Your task to perform on an android device: turn off improve location accuracy Image 0: 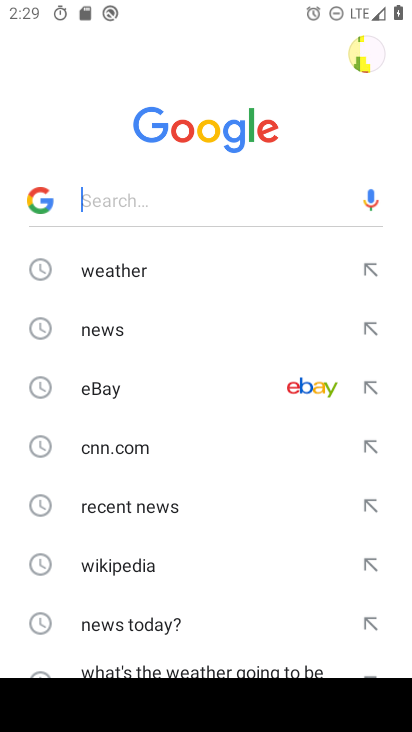
Step 0: press home button
Your task to perform on an android device: turn off improve location accuracy Image 1: 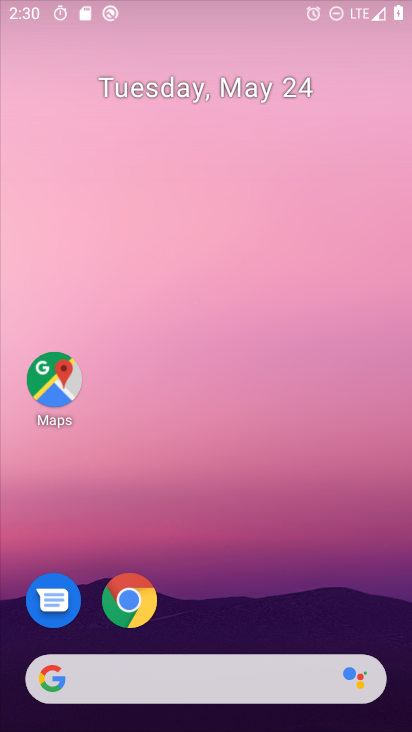
Step 1: drag from (272, 517) to (316, 78)
Your task to perform on an android device: turn off improve location accuracy Image 2: 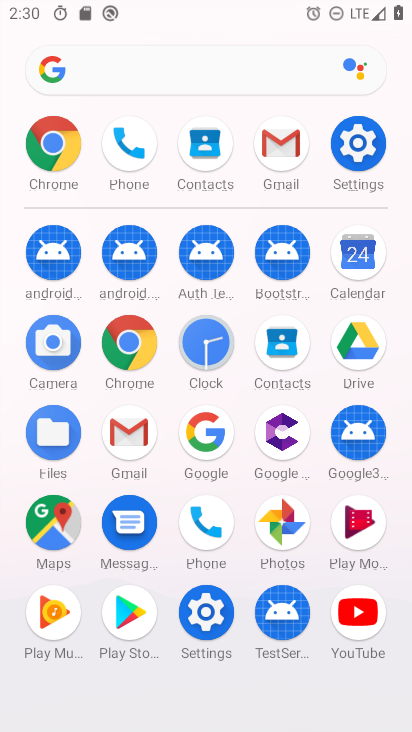
Step 2: click (350, 155)
Your task to perform on an android device: turn off improve location accuracy Image 3: 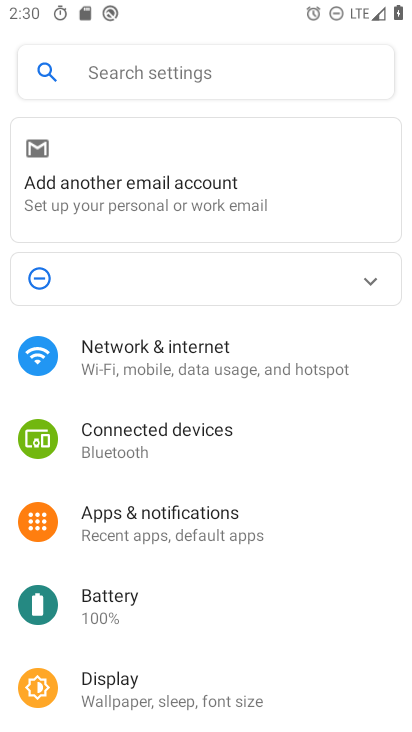
Step 3: drag from (170, 496) to (274, 178)
Your task to perform on an android device: turn off improve location accuracy Image 4: 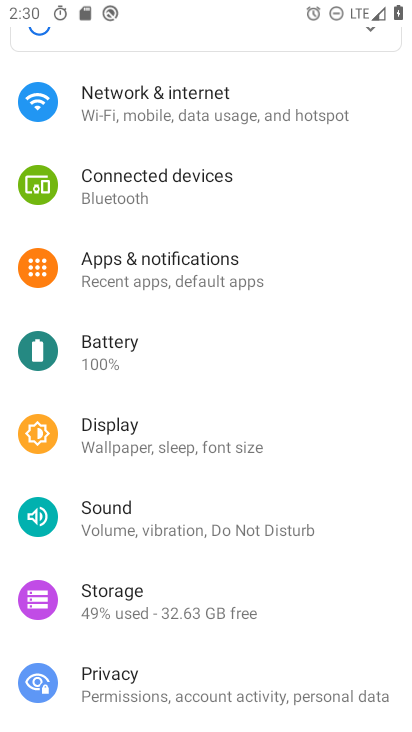
Step 4: drag from (227, 455) to (292, 184)
Your task to perform on an android device: turn off improve location accuracy Image 5: 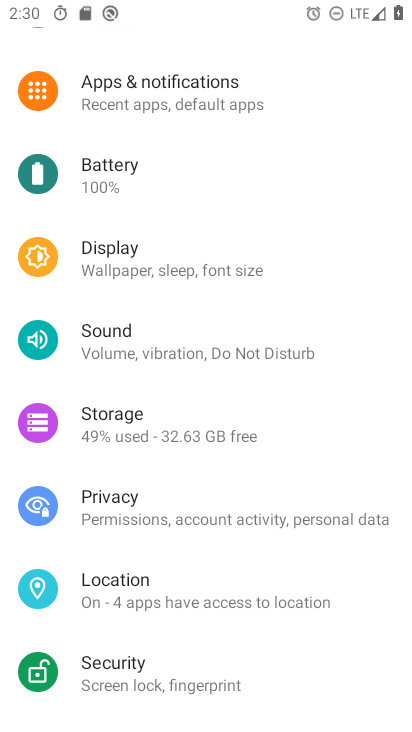
Step 5: drag from (196, 233) to (204, 494)
Your task to perform on an android device: turn off improve location accuracy Image 6: 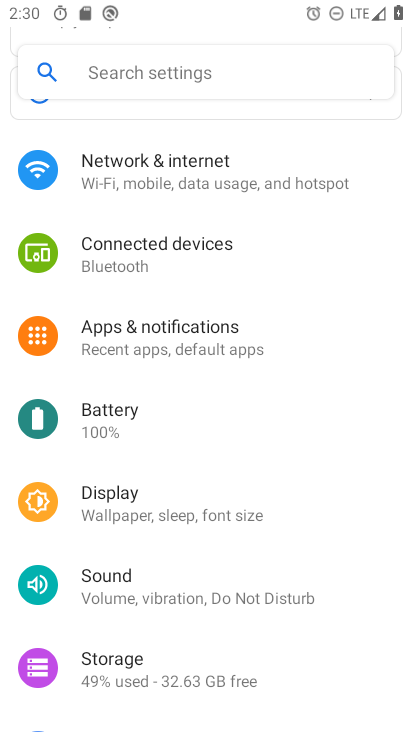
Step 6: drag from (218, 468) to (284, 195)
Your task to perform on an android device: turn off improve location accuracy Image 7: 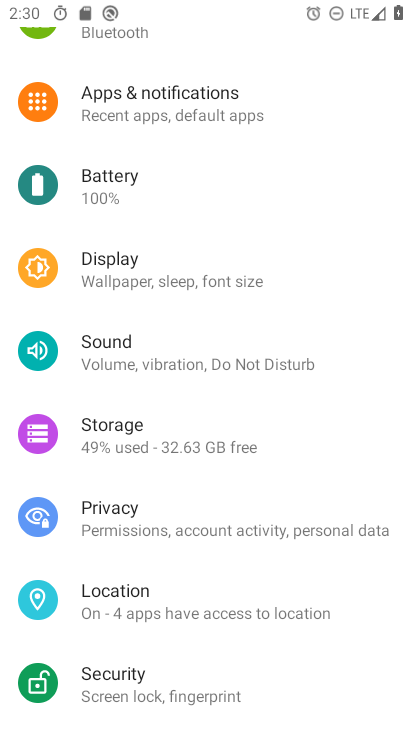
Step 7: drag from (225, 404) to (266, 158)
Your task to perform on an android device: turn off improve location accuracy Image 8: 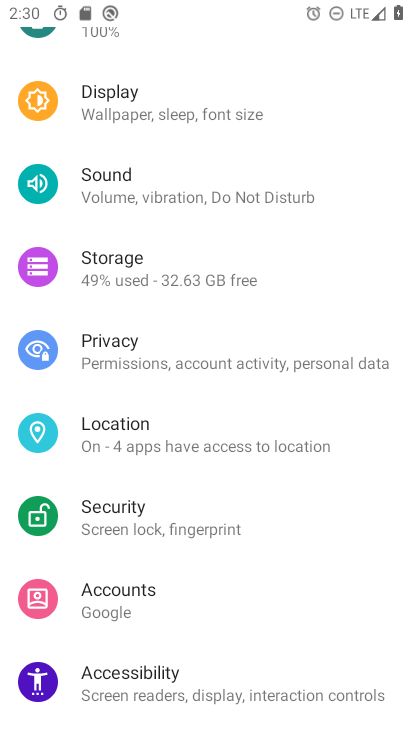
Step 8: click (175, 416)
Your task to perform on an android device: turn off improve location accuracy Image 9: 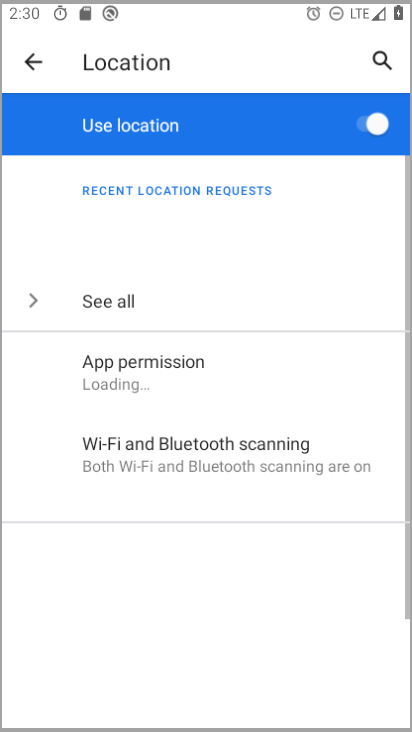
Step 9: click (150, 430)
Your task to perform on an android device: turn off improve location accuracy Image 10: 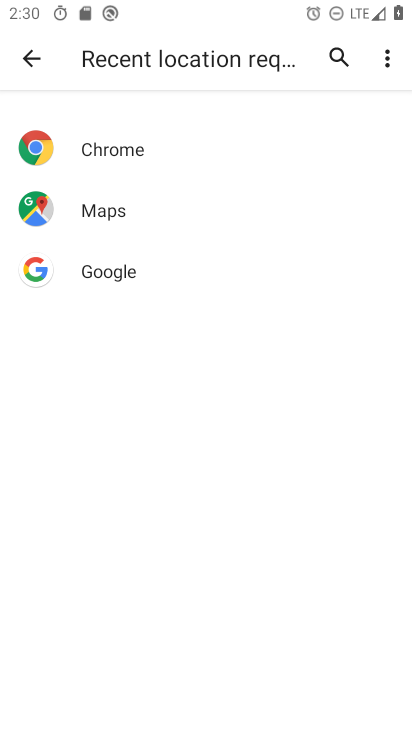
Step 10: click (13, 64)
Your task to perform on an android device: turn off improve location accuracy Image 11: 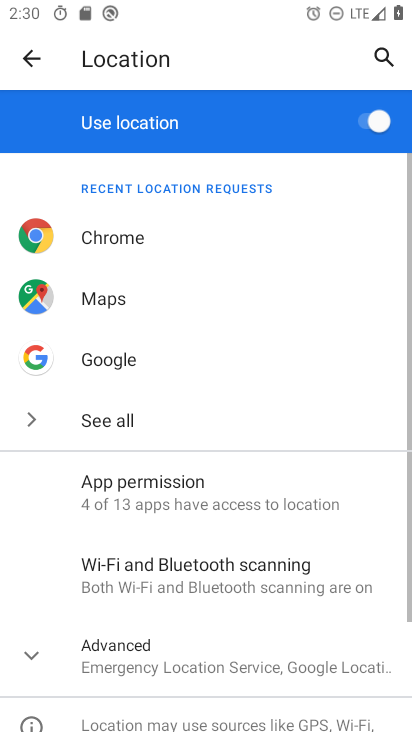
Step 11: drag from (186, 488) to (252, 97)
Your task to perform on an android device: turn off improve location accuracy Image 12: 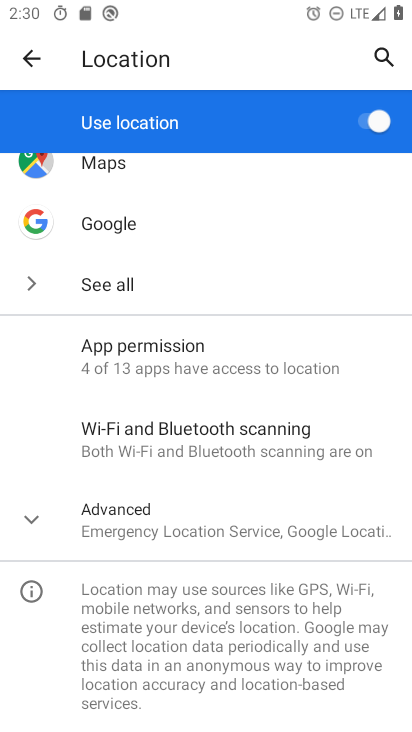
Step 12: click (114, 515)
Your task to perform on an android device: turn off improve location accuracy Image 13: 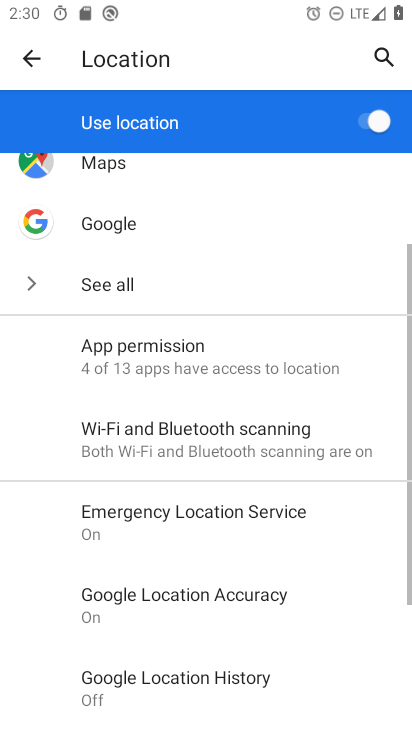
Step 13: drag from (224, 558) to (299, 129)
Your task to perform on an android device: turn off improve location accuracy Image 14: 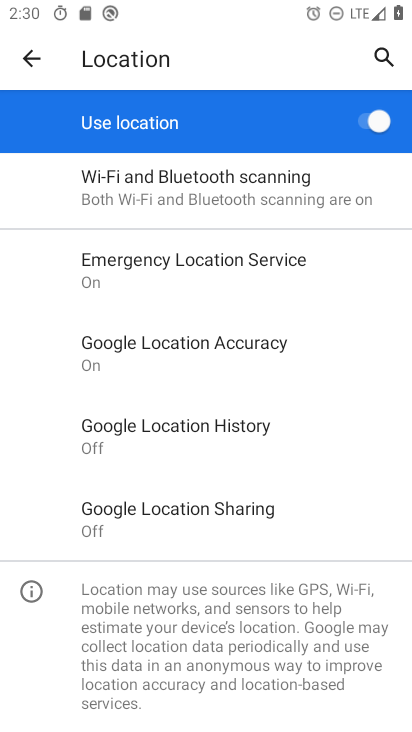
Step 14: click (231, 350)
Your task to perform on an android device: turn off improve location accuracy Image 15: 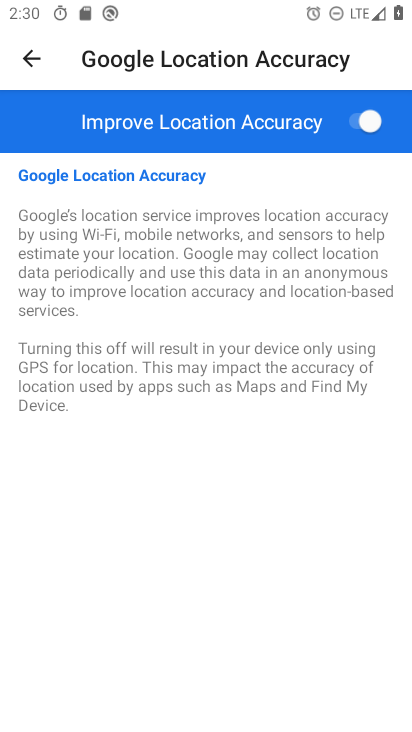
Step 15: click (365, 118)
Your task to perform on an android device: turn off improve location accuracy Image 16: 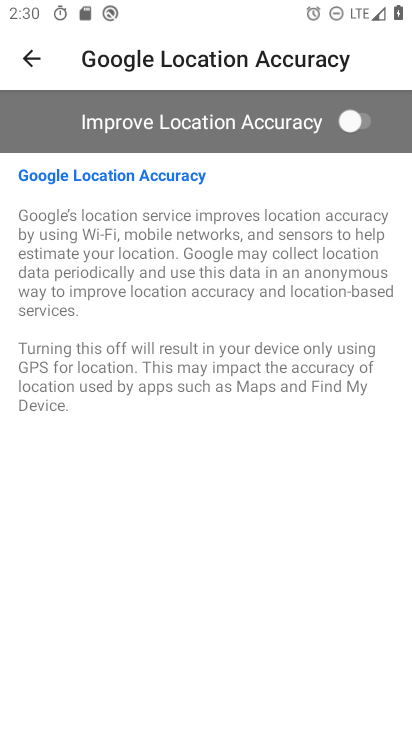
Step 16: task complete